Your task to perform on an android device: Open Yahoo.com Image 0: 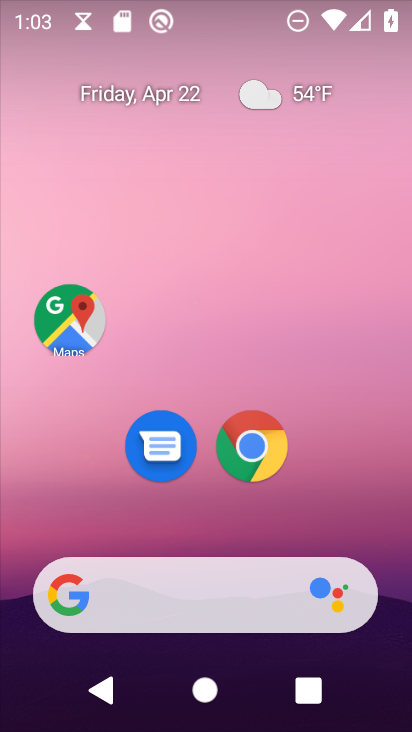
Step 0: click (276, 452)
Your task to perform on an android device: Open Yahoo.com Image 1: 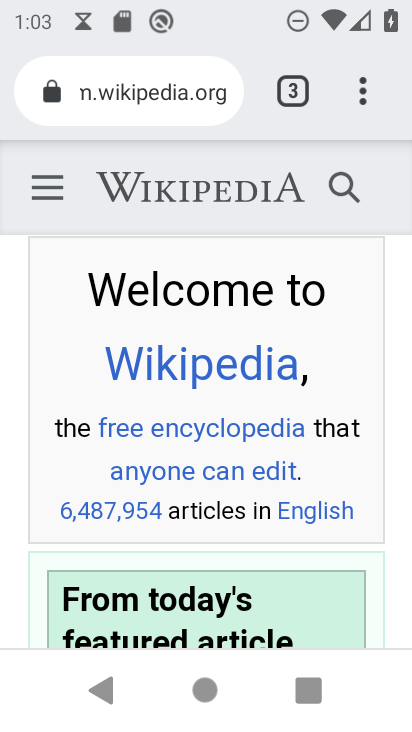
Step 1: click (182, 93)
Your task to perform on an android device: Open Yahoo.com Image 2: 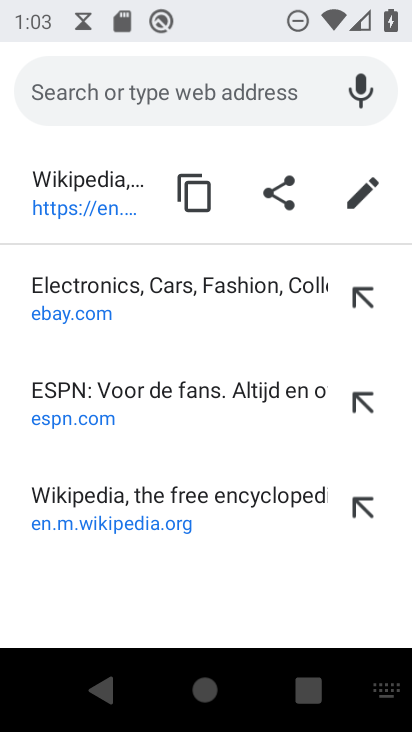
Step 2: type "yahoo.com"
Your task to perform on an android device: Open Yahoo.com Image 3: 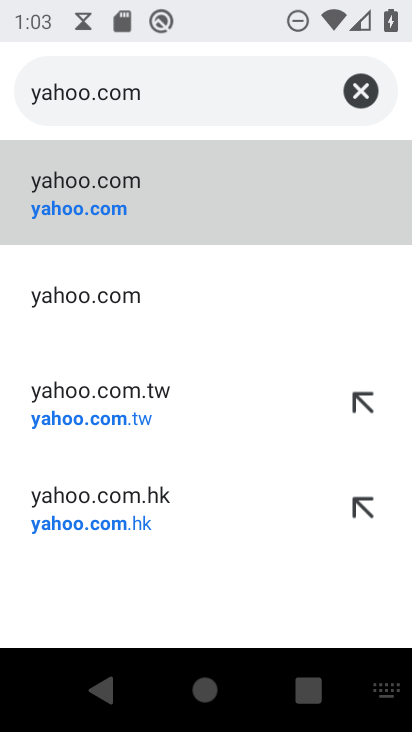
Step 3: click (84, 205)
Your task to perform on an android device: Open Yahoo.com Image 4: 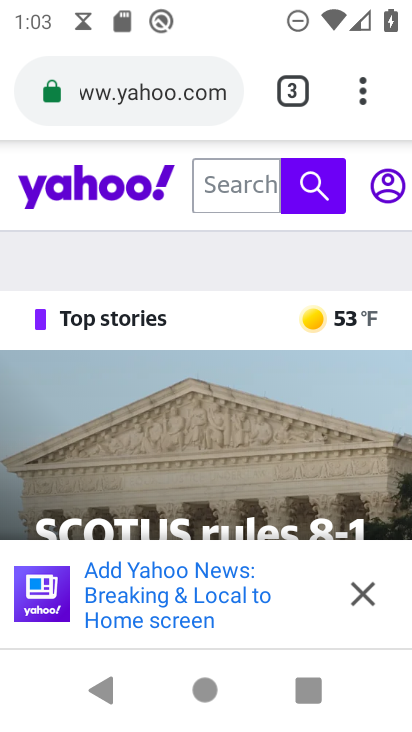
Step 4: task complete